Your task to perform on an android device: turn pop-ups on in chrome Image 0: 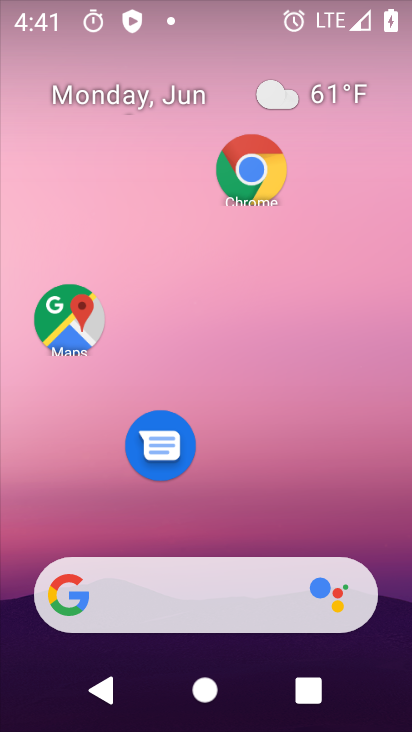
Step 0: click (254, 157)
Your task to perform on an android device: turn pop-ups on in chrome Image 1: 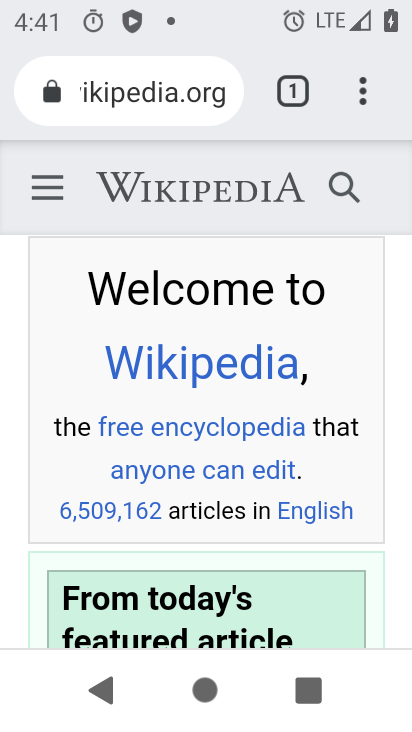
Step 1: click (364, 91)
Your task to perform on an android device: turn pop-ups on in chrome Image 2: 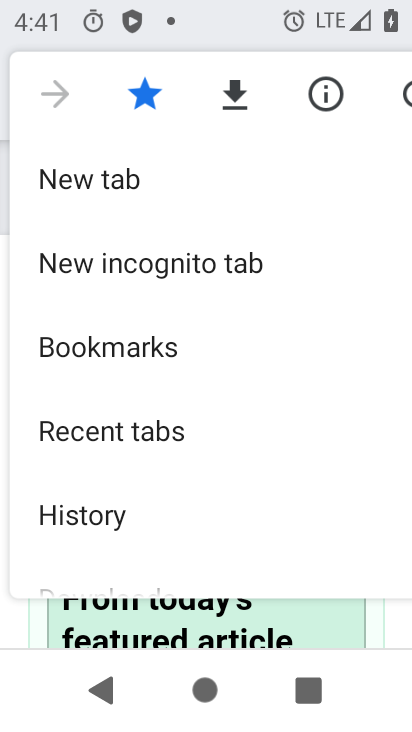
Step 2: drag from (143, 530) to (157, 159)
Your task to perform on an android device: turn pop-ups on in chrome Image 3: 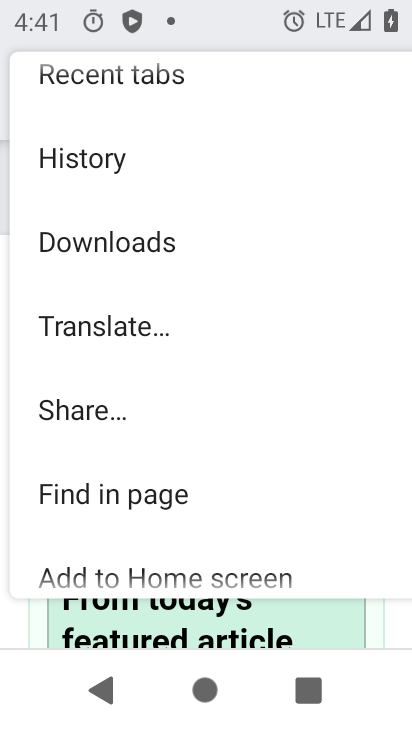
Step 3: drag from (166, 492) to (173, 188)
Your task to perform on an android device: turn pop-ups on in chrome Image 4: 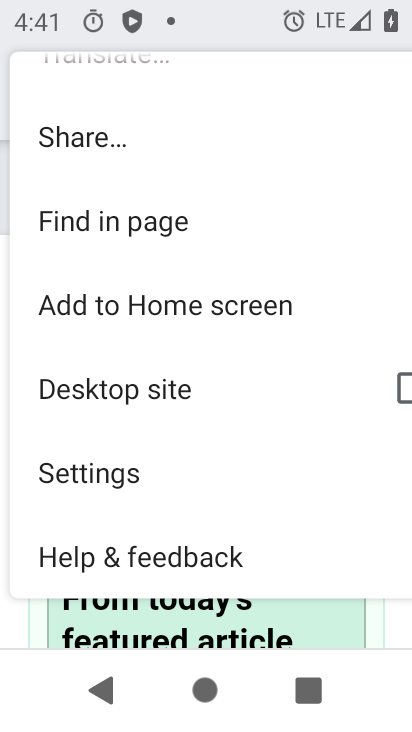
Step 4: click (117, 475)
Your task to perform on an android device: turn pop-ups on in chrome Image 5: 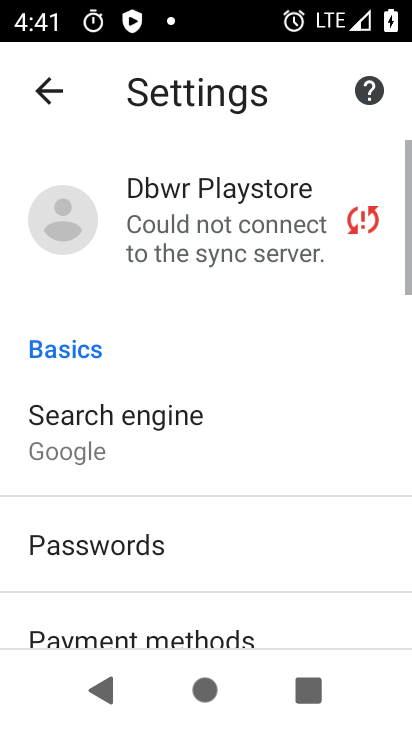
Step 5: drag from (144, 555) to (186, 203)
Your task to perform on an android device: turn pop-ups on in chrome Image 6: 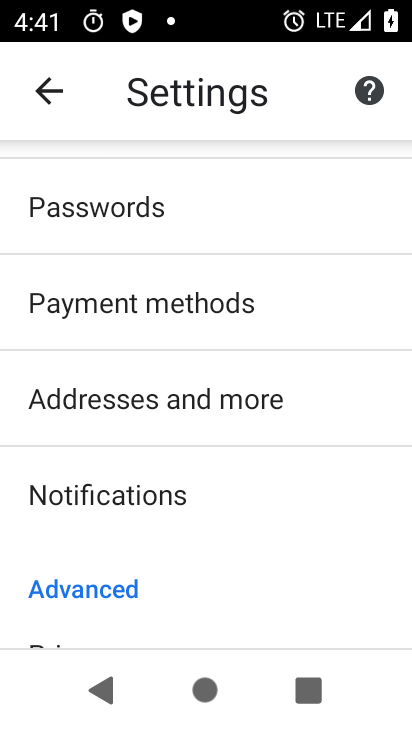
Step 6: drag from (160, 527) to (161, 173)
Your task to perform on an android device: turn pop-ups on in chrome Image 7: 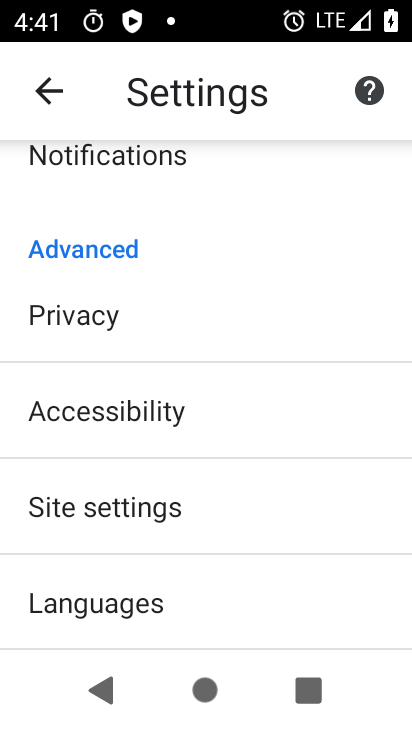
Step 7: click (133, 509)
Your task to perform on an android device: turn pop-ups on in chrome Image 8: 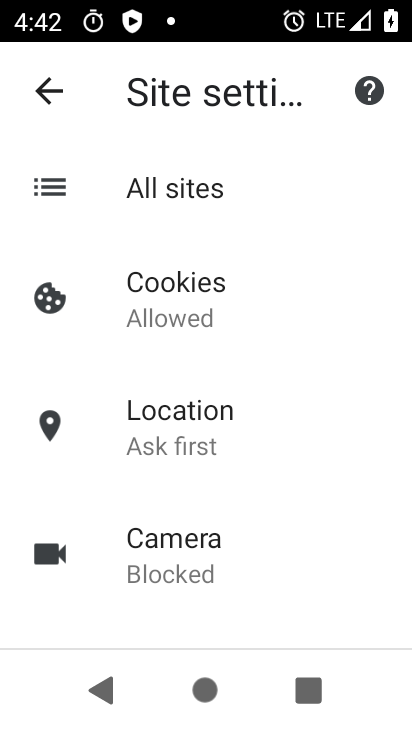
Step 8: drag from (152, 569) to (183, 244)
Your task to perform on an android device: turn pop-ups on in chrome Image 9: 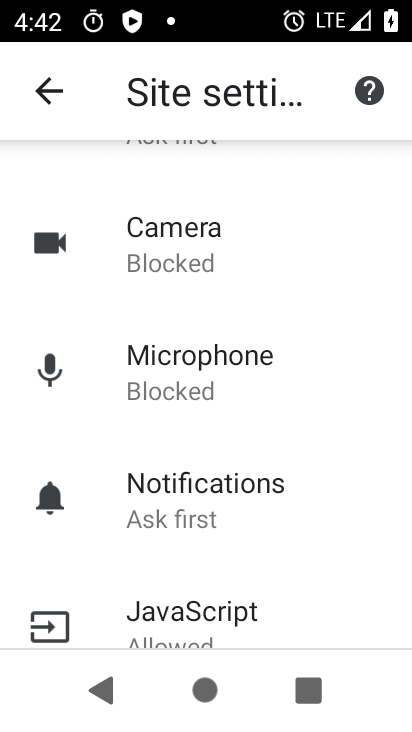
Step 9: drag from (205, 622) to (208, 219)
Your task to perform on an android device: turn pop-ups on in chrome Image 10: 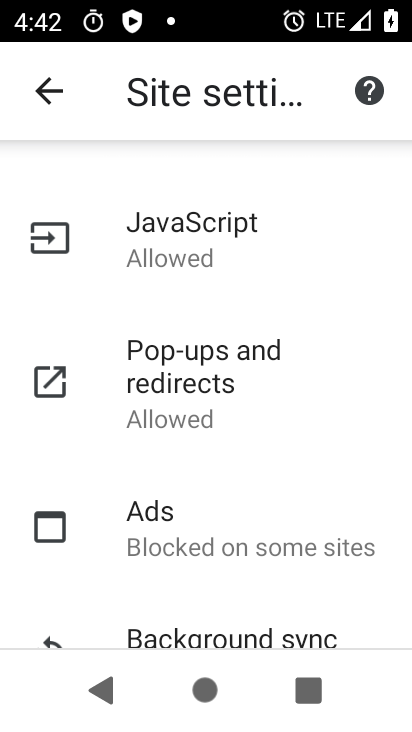
Step 10: click (192, 376)
Your task to perform on an android device: turn pop-ups on in chrome Image 11: 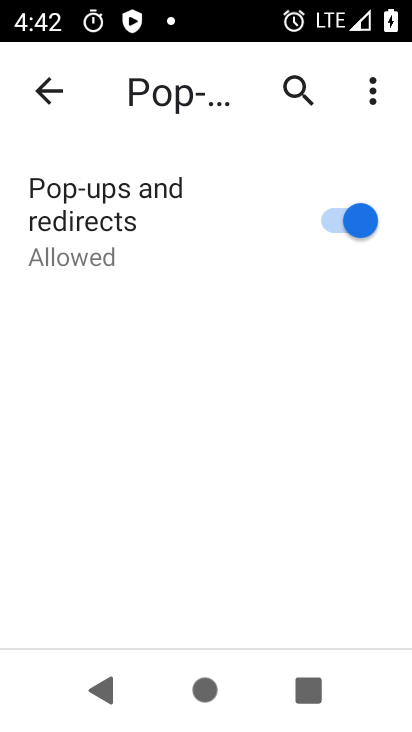
Step 11: click (336, 226)
Your task to perform on an android device: turn pop-ups on in chrome Image 12: 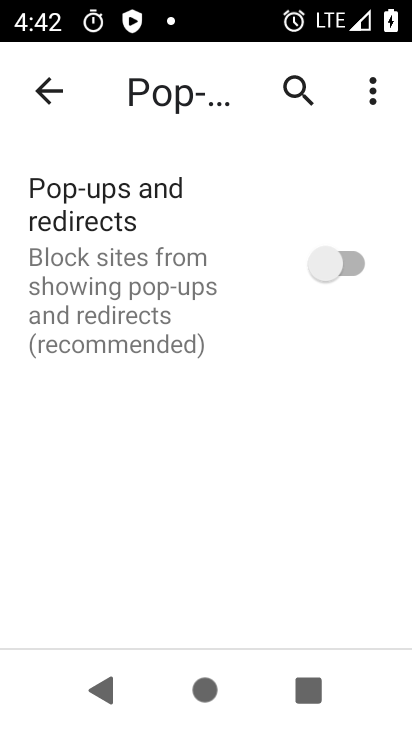
Step 12: task complete